Your task to perform on an android device: Search for Mexican restaurants on Maps Image 0: 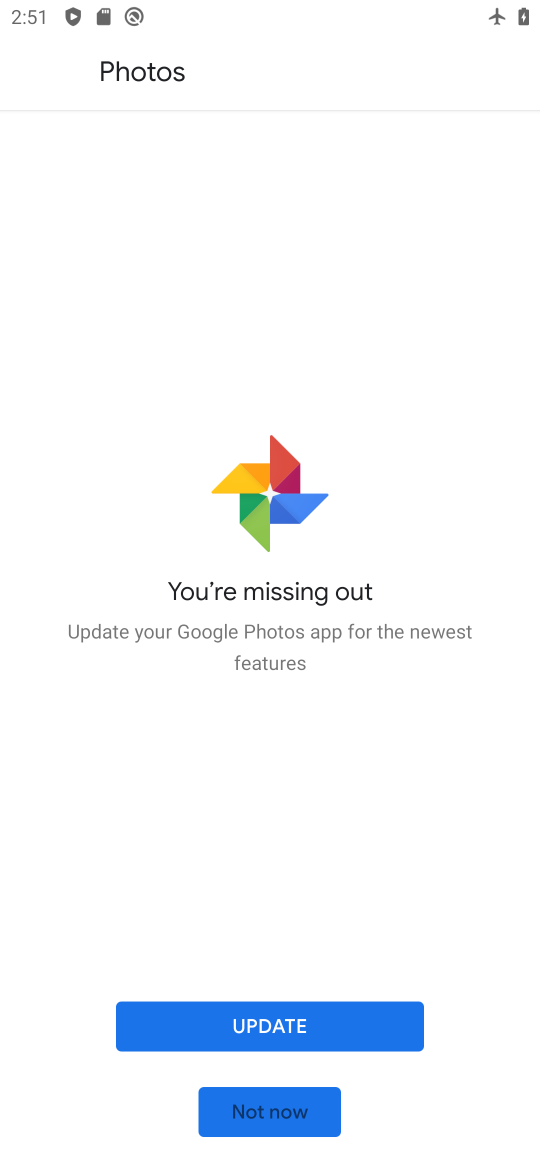
Step 0: press home button
Your task to perform on an android device: Search for Mexican restaurants on Maps Image 1: 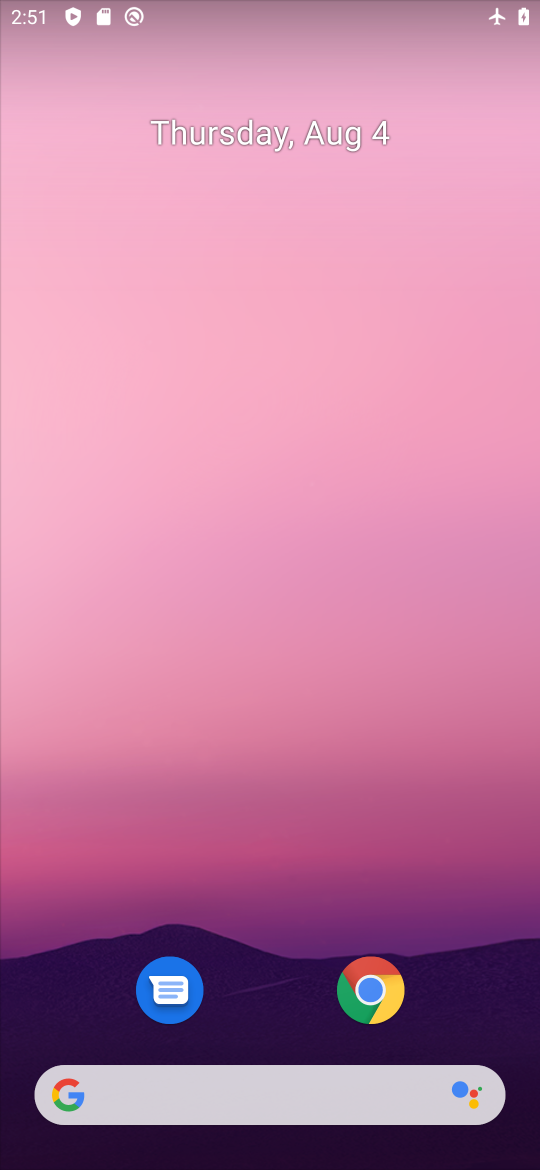
Step 1: drag from (268, 1034) to (134, 14)
Your task to perform on an android device: Search for Mexican restaurants on Maps Image 2: 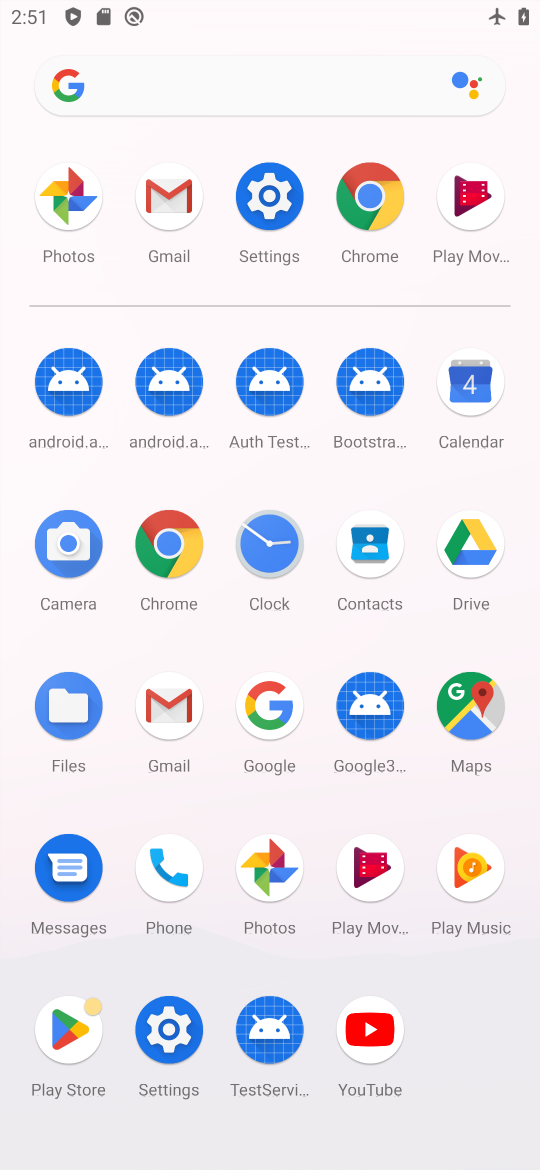
Step 2: click (451, 760)
Your task to perform on an android device: Search for Mexican restaurants on Maps Image 3: 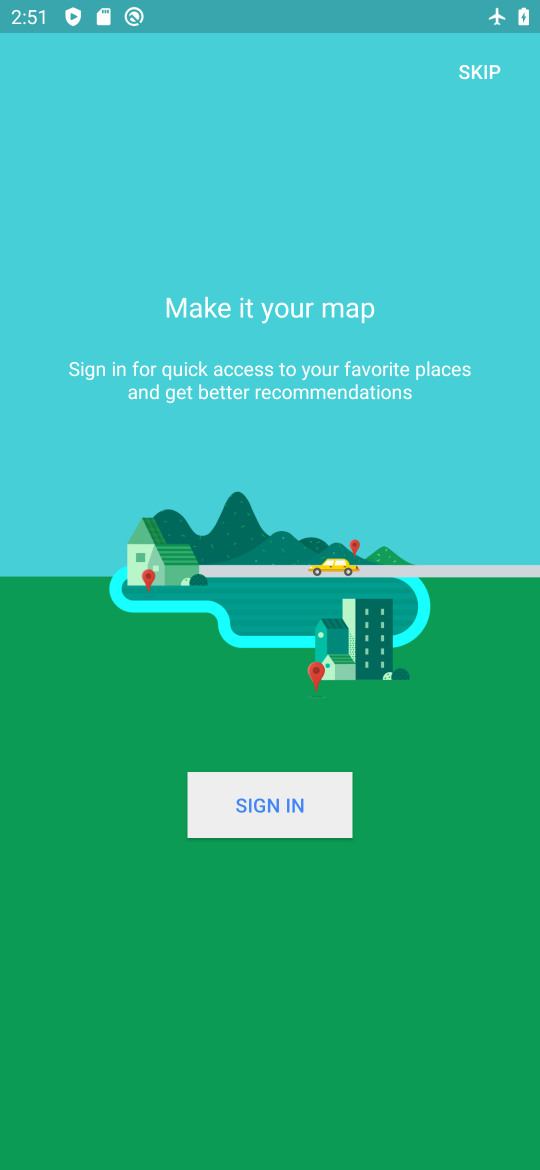
Step 3: task complete